Your task to perform on an android device: What's on my calendar tomorrow? Image 0: 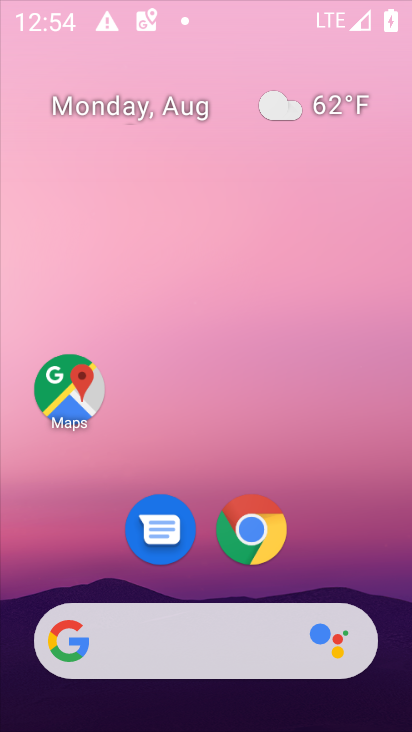
Step 0: press home button
Your task to perform on an android device: What's on my calendar tomorrow? Image 1: 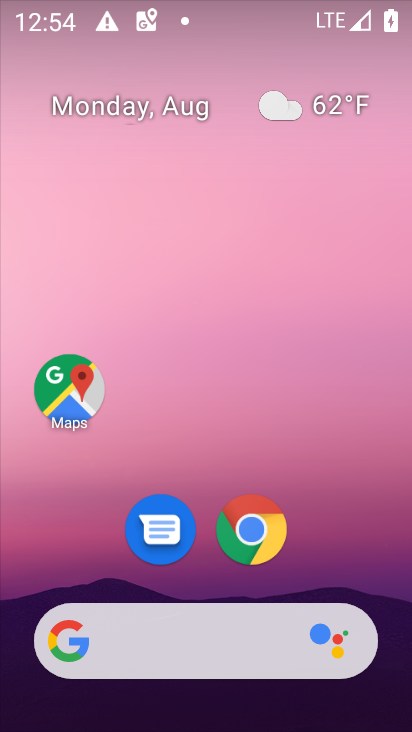
Step 1: drag from (163, 615) to (198, 306)
Your task to perform on an android device: What's on my calendar tomorrow? Image 2: 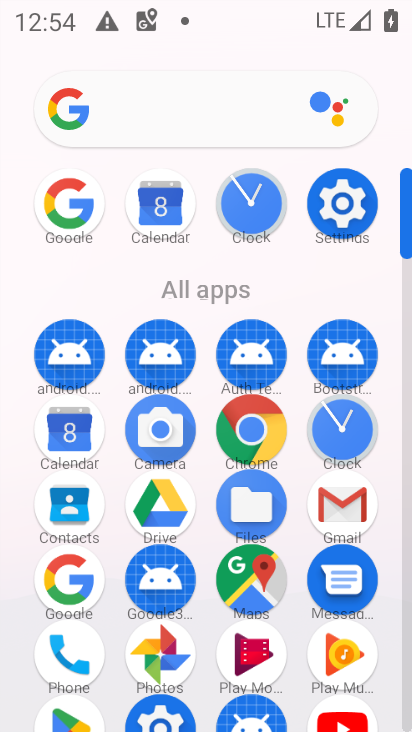
Step 2: click (70, 436)
Your task to perform on an android device: What's on my calendar tomorrow? Image 3: 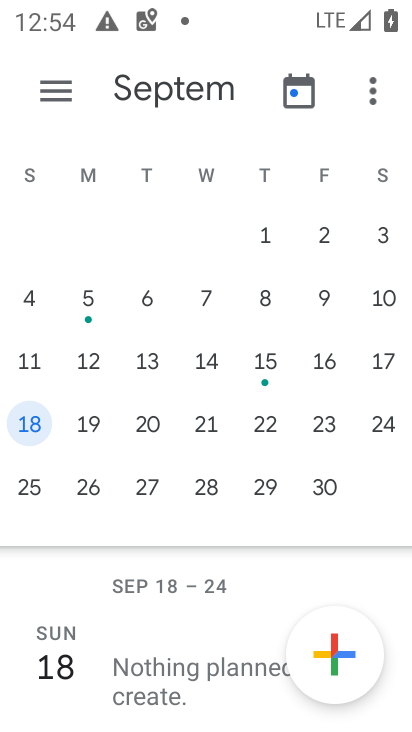
Step 3: drag from (6, 241) to (409, 238)
Your task to perform on an android device: What's on my calendar tomorrow? Image 4: 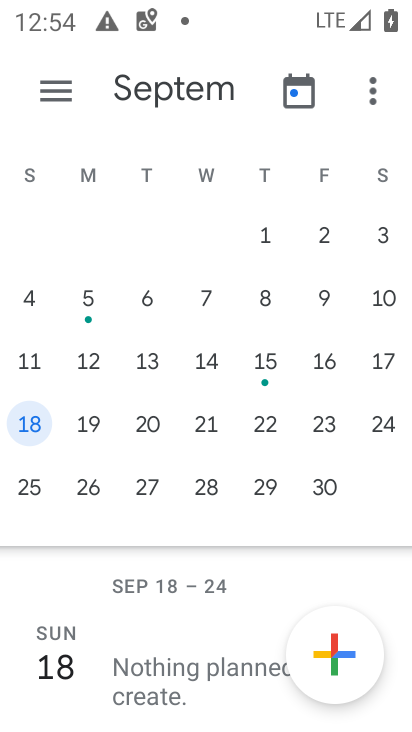
Step 4: drag from (14, 127) to (410, 243)
Your task to perform on an android device: What's on my calendar tomorrow? Image 5: 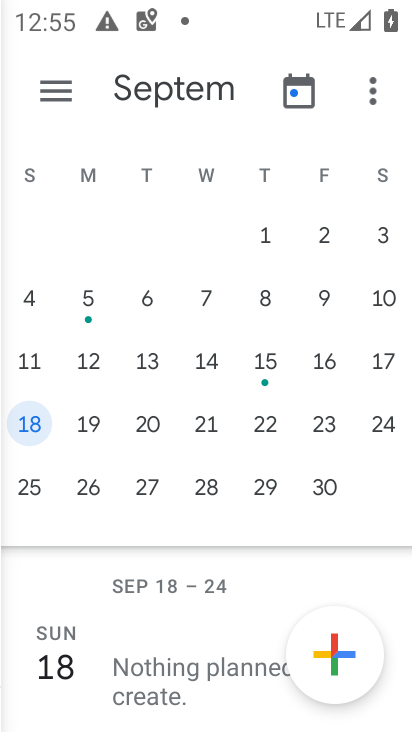
Step 5: click (377, 135)
Your task to perform on an android device: What's on my calendar tomorrow? Image 6: 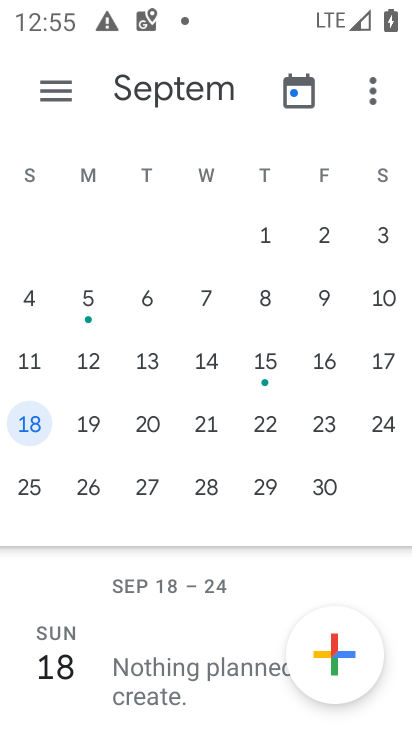
Step 6: drag from (36, 244) to (408, 247)
Your task to perform on an android device: What's on my calendar tomorrow? Image 7: 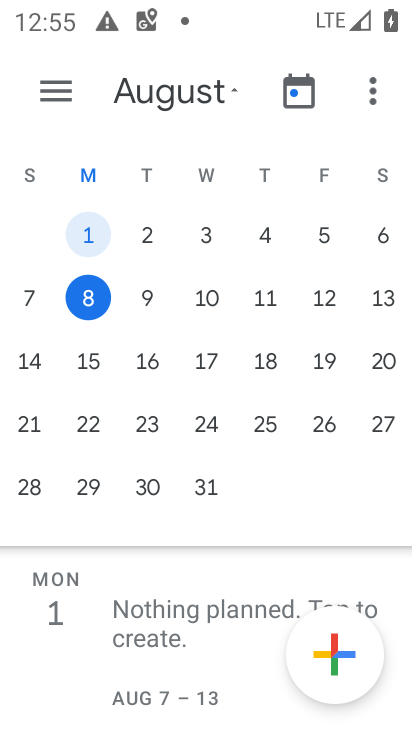
Step 7: click (145, 297)
Your task to perform on an android device: What's on my calendar tomorrow? Image 8: 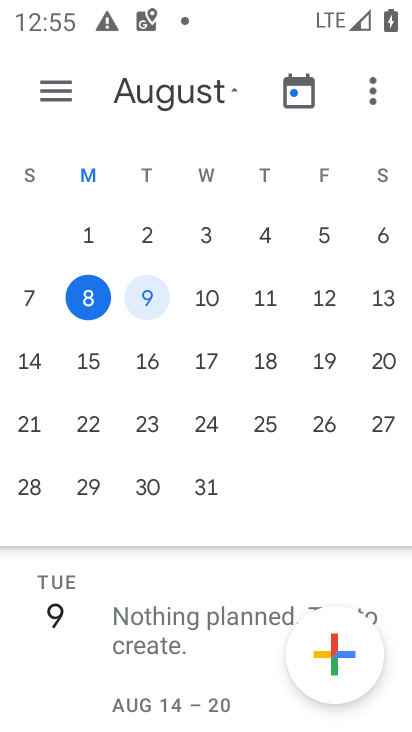
Step 8: task complete